Your task to perform on an android device: remove spam from my inbox in the gmail app Image 0: 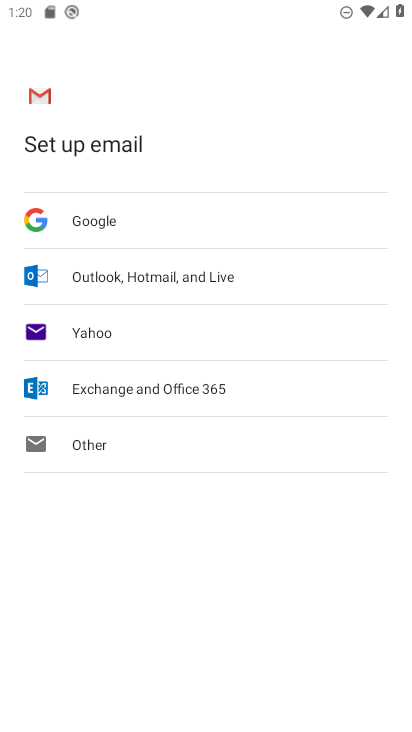
Step 0: press home button
Your task to perform on an android device: remove spam from my inbox in the gmail app Image 1: 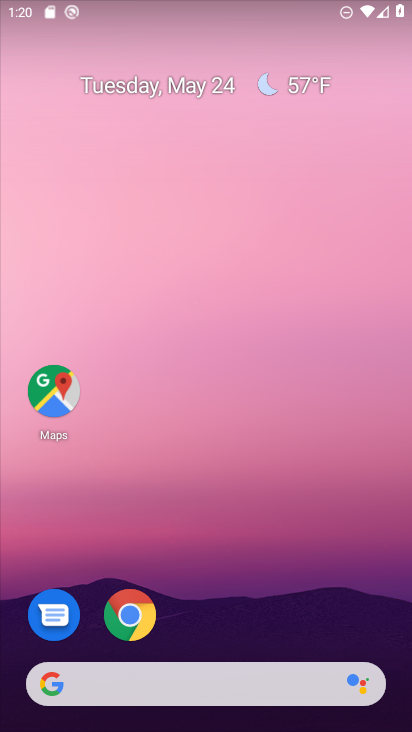
Step 1: drag from (168, 662) to (189, 369)
Your task to perform on an android device: remove spam from my inbox in the gmail app Image 2: 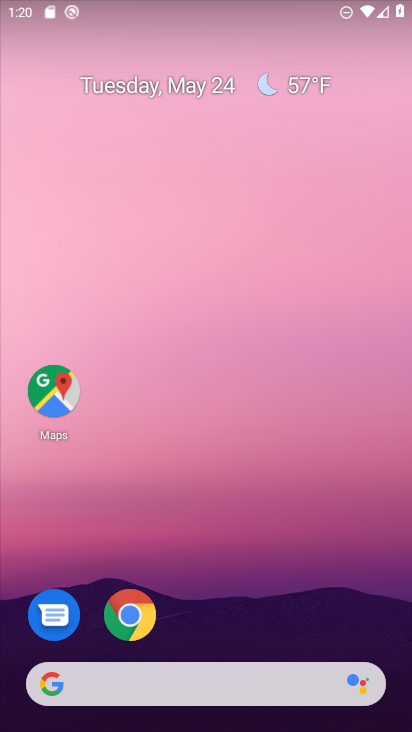
Step 2: drag from (254, 662) to (256, 91)
Your task to perform on an android device: remove spam from my inbox in the gmail app Image 3: 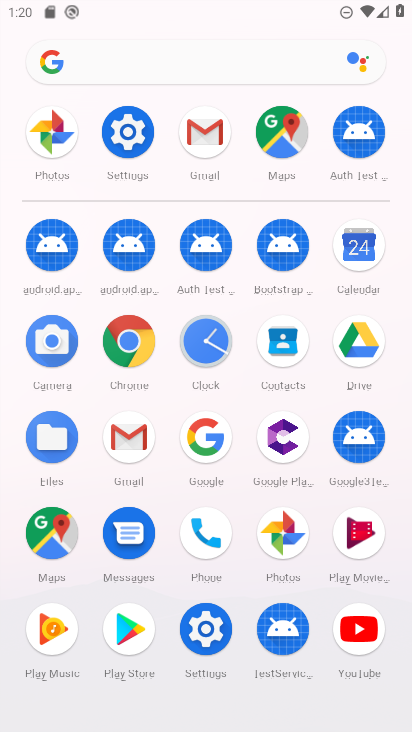
Step 3: click (195, 137)
Your task to perform on an android device: remove spam from my inbox in the gmail app Image 4: 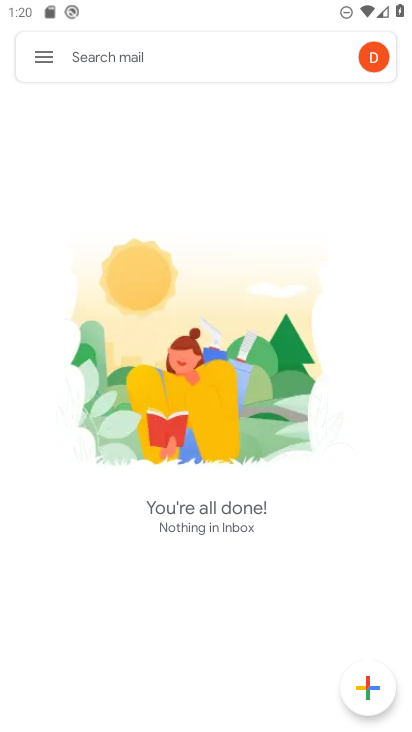
Step 4: click (31, 61)
Your task to perform on an android device: remove spam from my inbox in the gmail app Image 5: 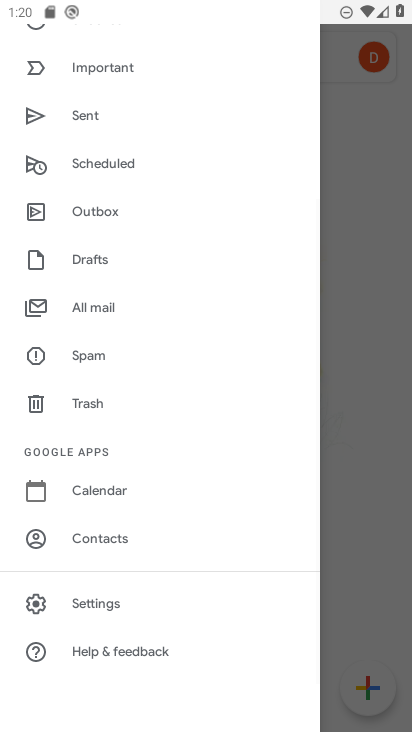
Step 5: click (86, 363)
Your task to perform on an android device: remove spam from my inbox in the gmail app Image 6: 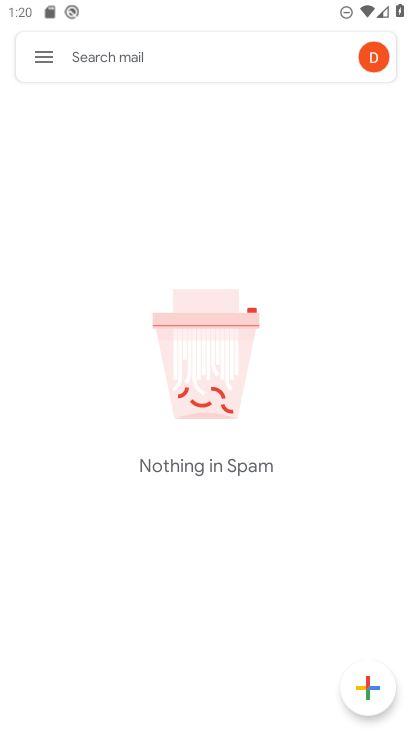
Step 6: task complete